Your task to perform on an android device: Open the phone app and click the voicemail tab. Image 0: 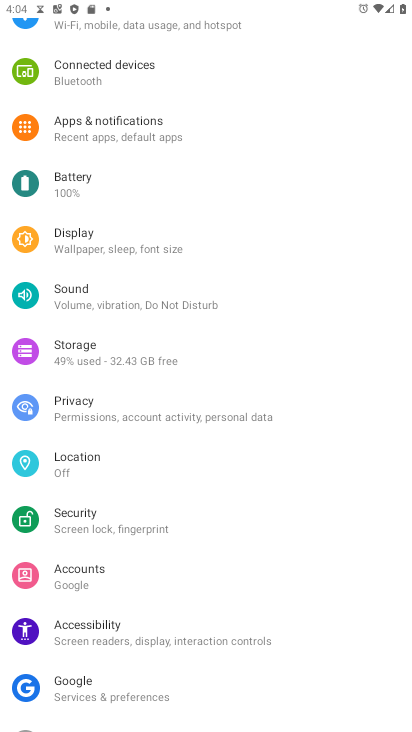
Step 0: press home button
Your task to perform on an android device: Open the phone app and click the voicemail tab. Image 1: 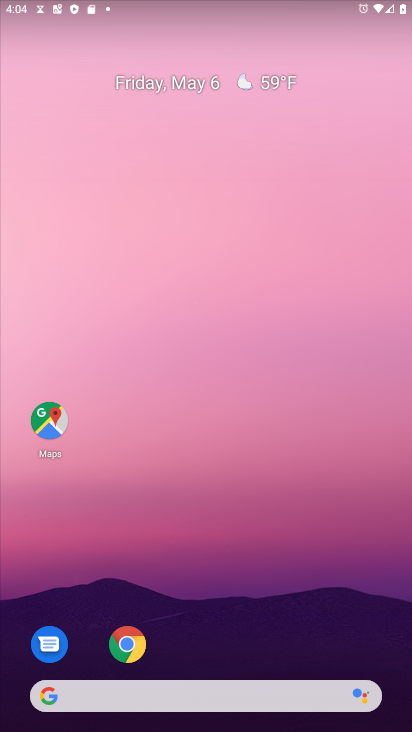
Step 1: drag from (202, 577) to (251, 38)
Your task to perform on an android device: Open the phone app and click the voicemail tab. Image 2: 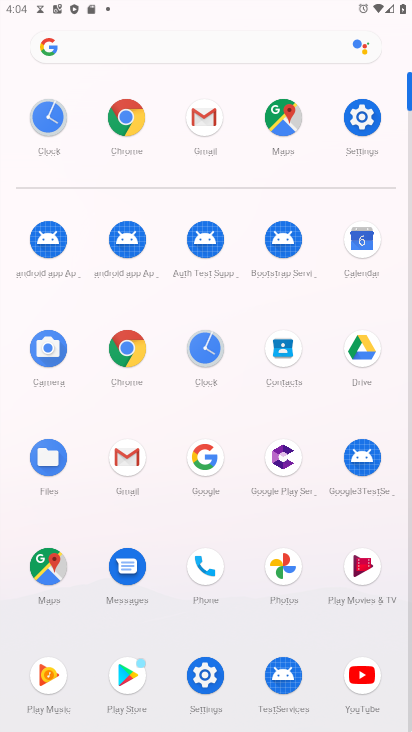
Step 2: click (203, 569)
Your task to perform on an android device: Open the phone app and click the voicemail tab. Image 3: 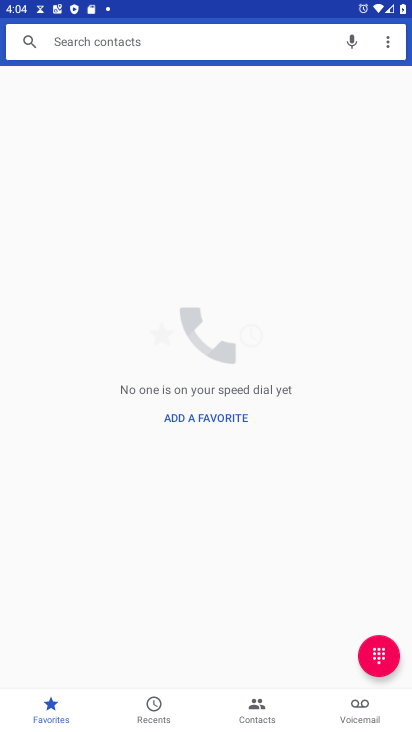
Step 3: click (355, 708)
Your task to perform on an android device: Open the phone app and click the voicemail tab. Image 4: 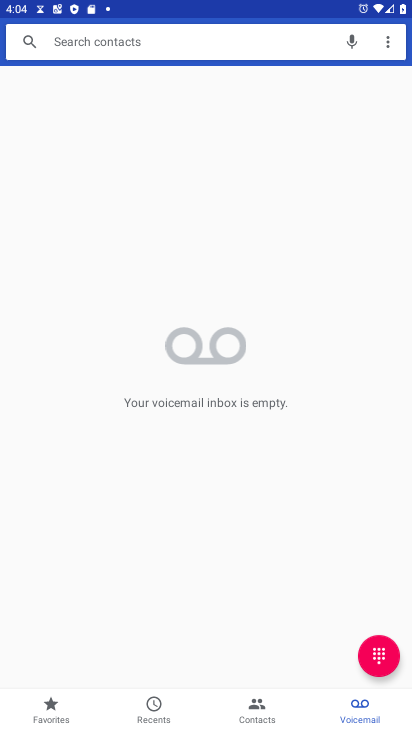
Step 4: task complete